Your task to perform on an android device: change notification settings in the gmail app Image 0: 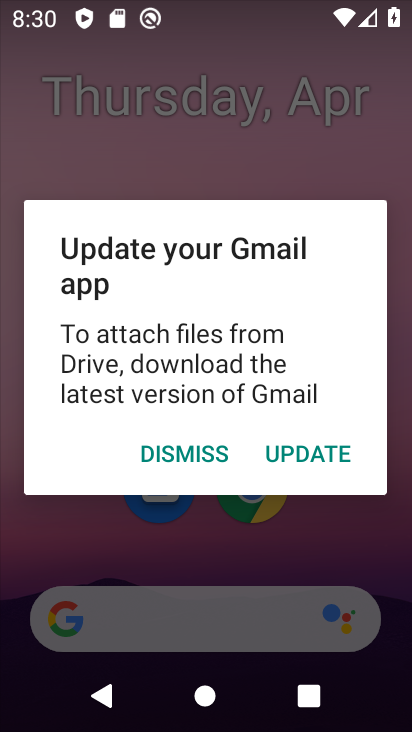
Step 0: press home button
Your task to perform on an android device: change notification settings in the gmail app Image 1: 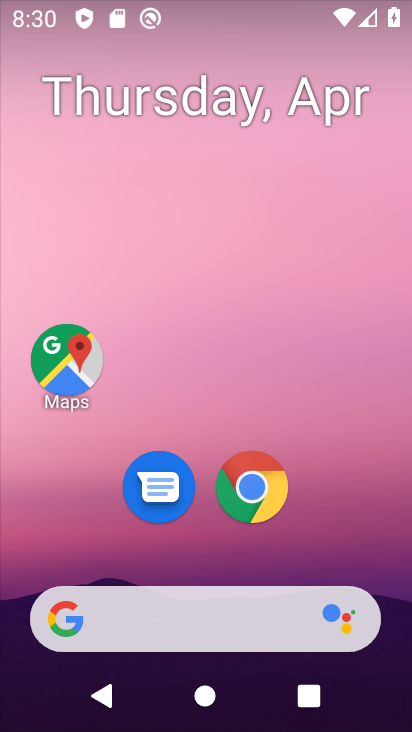
Step 1: drag from (222, 569) to (228, 175)
Your task to perform on an android device: change notification settings in the gmail app Image 2: 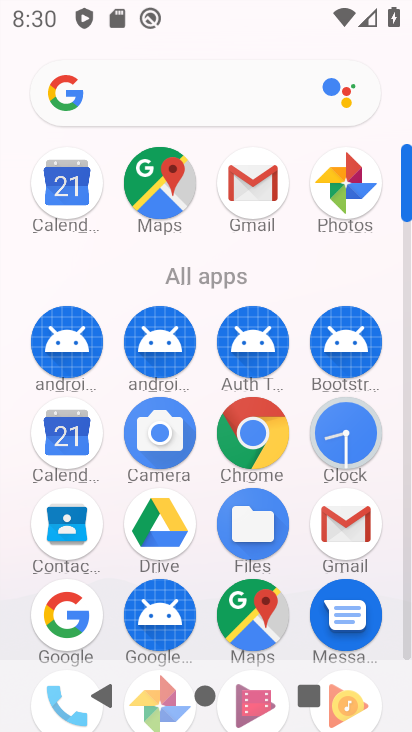
Step 2: click (246, 203)
Your task to perform on an android device: change notification settings in the gmail app Image 3: 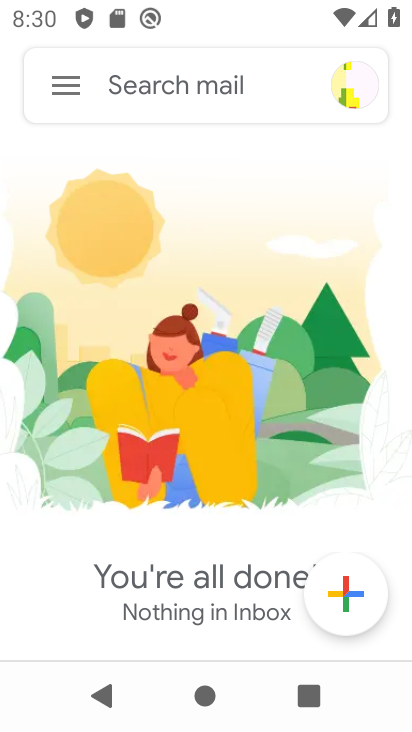
Step 3: click (83, 81)
Your task to perform on an android device: change notification settings in the gmail app Image 4: 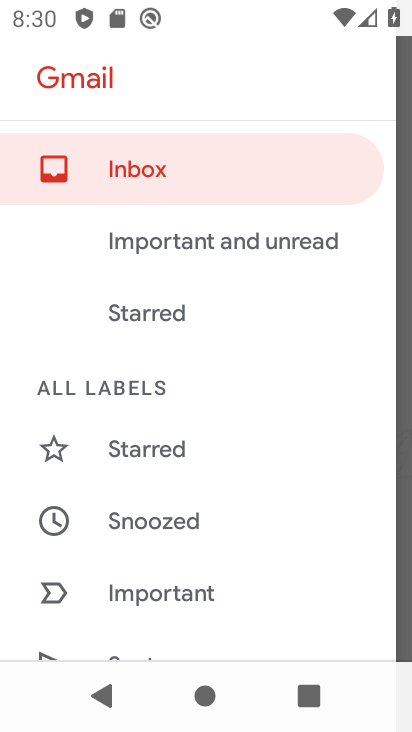
Step 4: drag from (254, 606) to (265, 264)
Your task to perform on an android device: change notification settings in the gmail app Image 5: 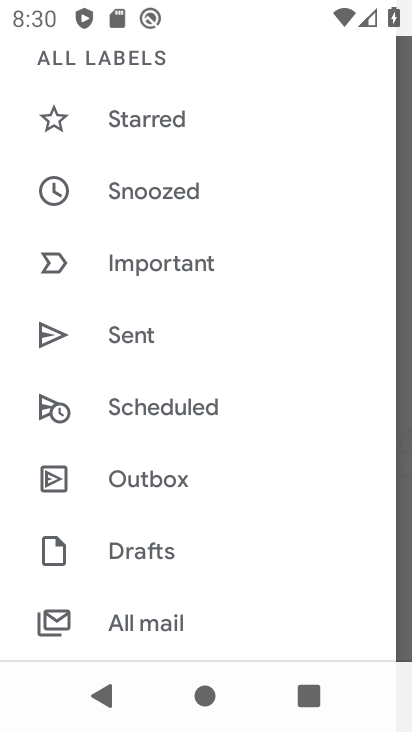
Step 5: drag from (185, 579) to (215, 340)
Your task to perform on an android device: change notification settings in the gmail app Image 6: 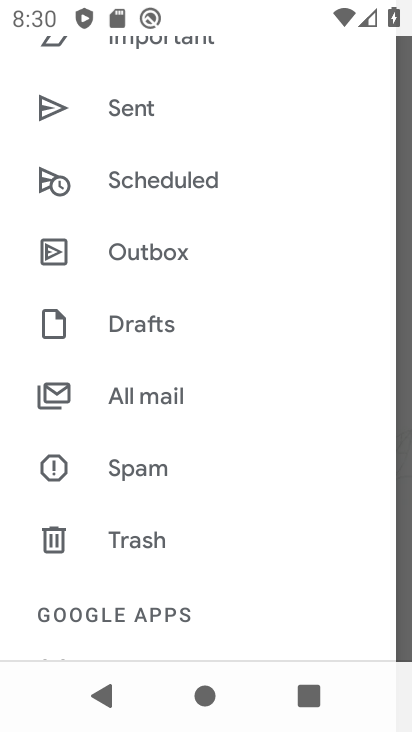
Step 6: drag from (183, 488) to (209, 262)
Your task to perform on an android device: change notification settings in the gmail app Image 7: 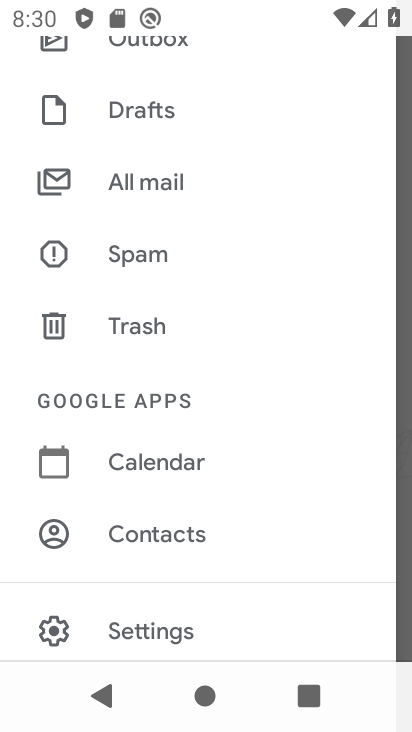
Step 7: click (136, 608)
Your task to perform on an android device: change notification settings in the gmail app Image 8: 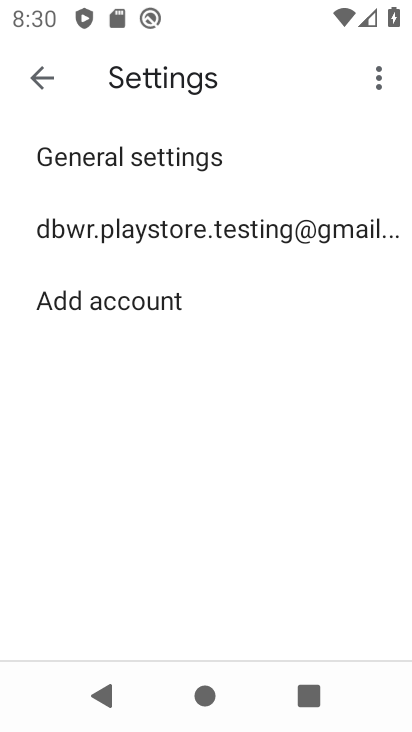
Step 8: click (178, 225)
Your task to perform on an android device: change notification settings in the gmail app Image 9: 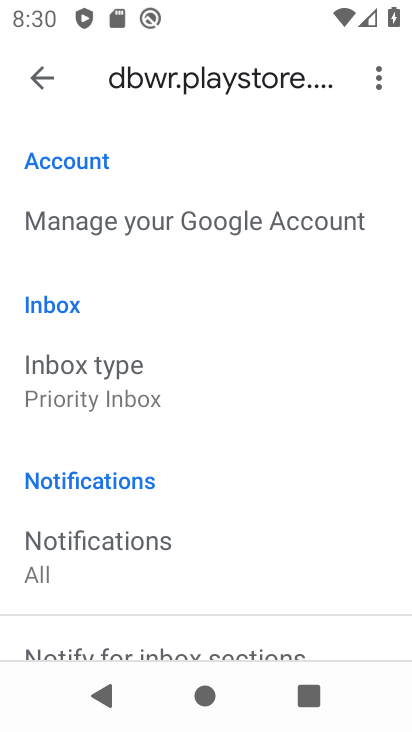
Step 9: drag from (173, 562) to (220, 286)
Your task to perform on an android device: change notification settings in the gmail app Image 10: 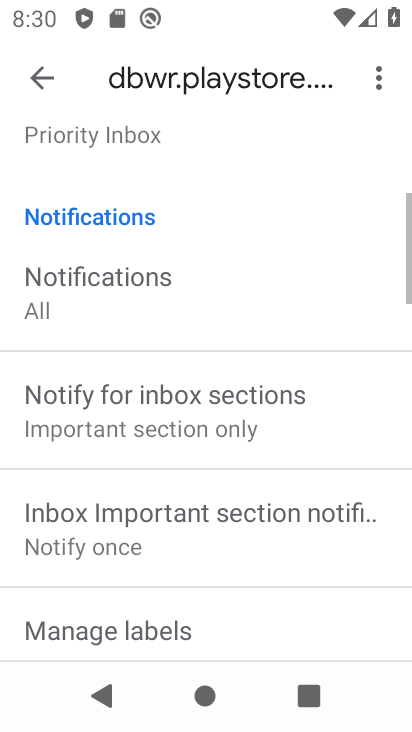
Step 10: drag from (201, 526) to (247, 308)
Your task to perform on an android device: change notification settings in the gmail app Image 11: 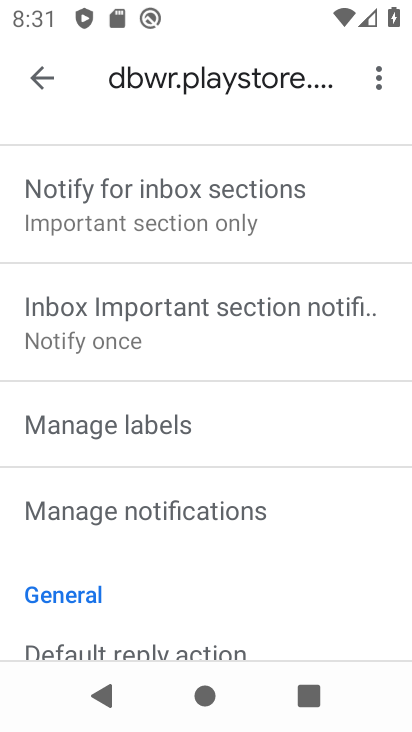
Step 11: click (193, 505)
Your task to perform on an android device: change notification settings in the gmail app Image 12: 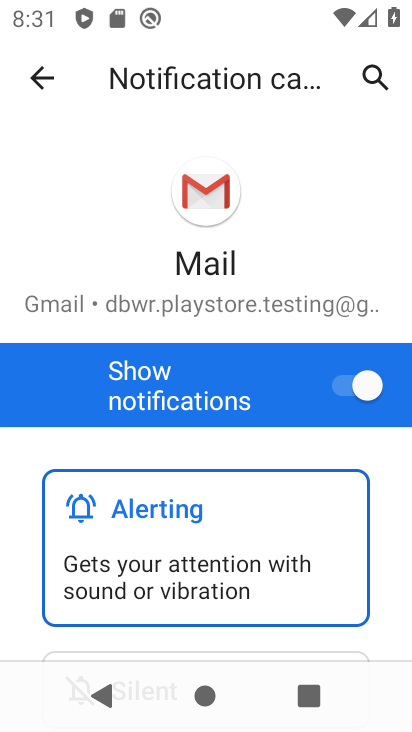
Step 12: click (345, 366)
Your task to perform on an android device: change notification settings in the gmail app Image 13: 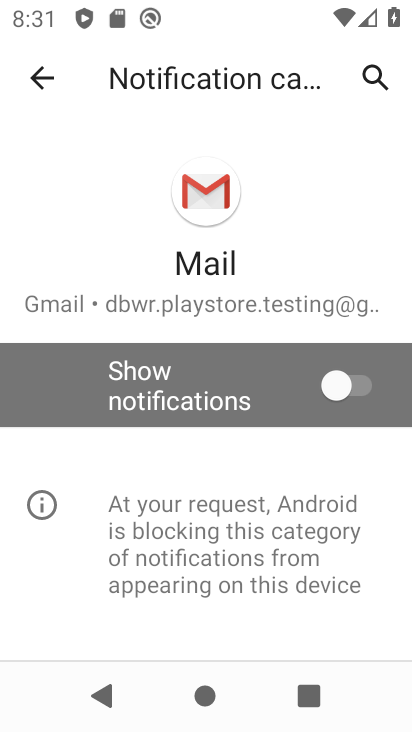
Step 13: task complete